Your task to perform on an android device: open the mobile data screen to see how much data has been used Image 0: 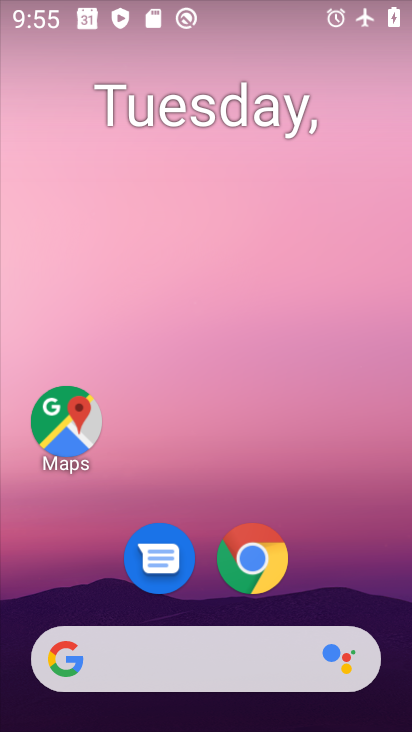
Step 0: drag from (292, 444) to (108, 16)
Your task to perform on an android device: open the mobile data screen to see how much data has been used Image 1: 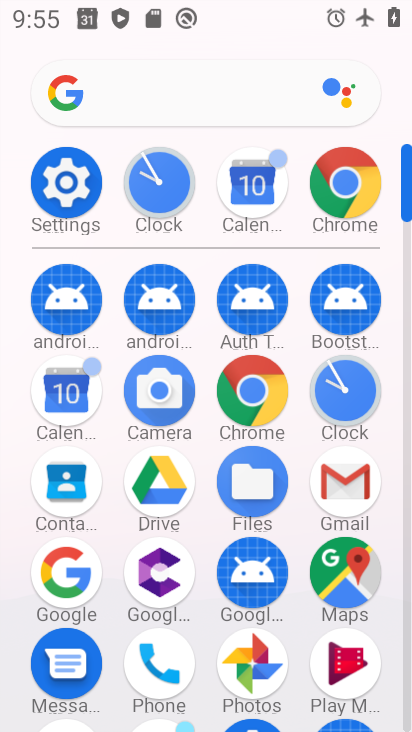
Step 1: click (52, 182)
Your task to perform on an android device: open the mobile data screen to see how much data has been used Image 2: 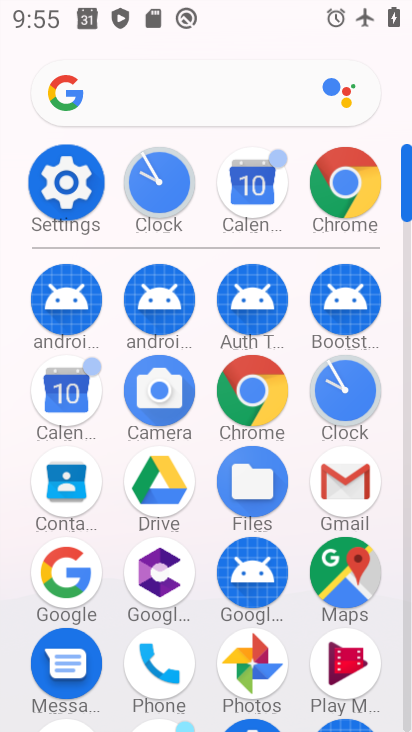
Step 2: click (53, 182)
Your task to perform on an android device: open the mobile data screen to see how much data has been used Image 3: 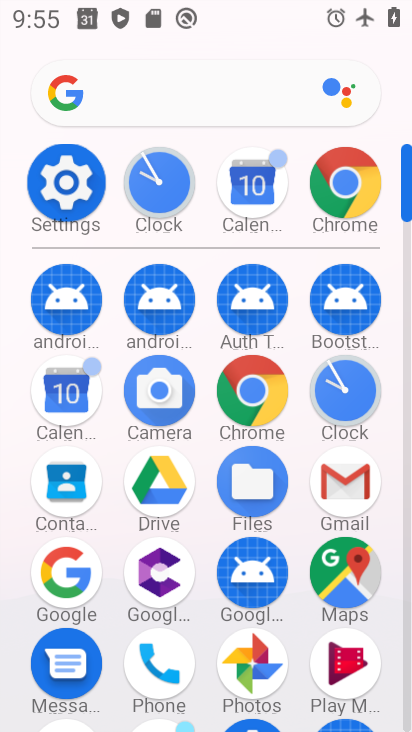
Step 3: click (54, 183)
Your task to perform on an android device: open the mobile data screen to see how much data has been used Image 4: 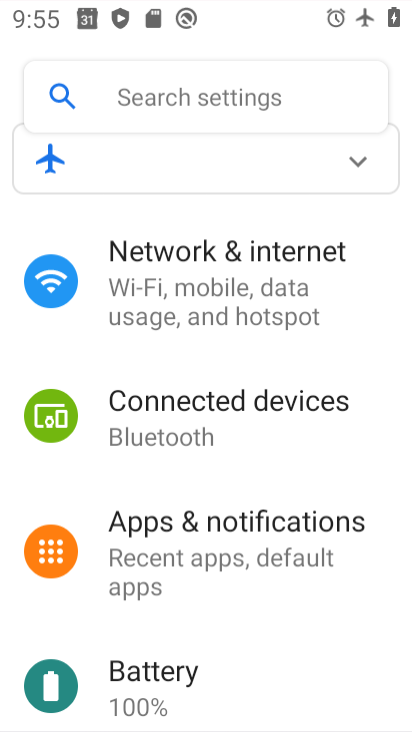
Step 4: click (65, 188)
Your task to perform on an android device: open the mobile data screen to see how much data has been used Image 5: 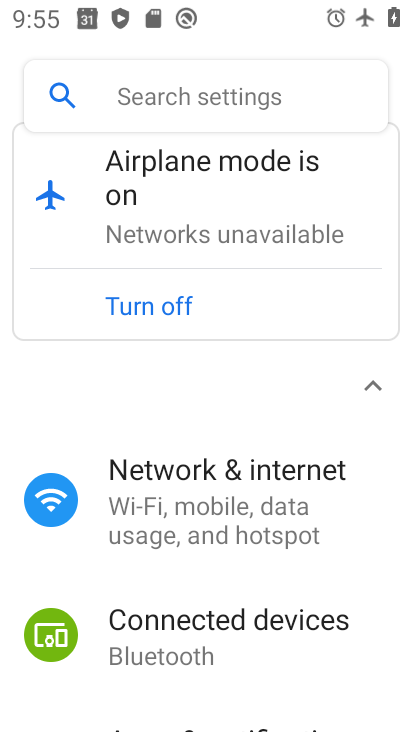
Step 5: click (199, 510)
Your task to perform on an android device: open the mobile data screen to see how much data has been used Image 6: 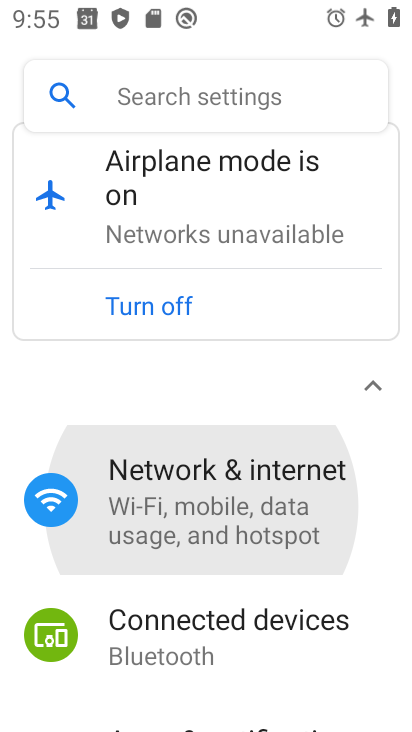
Step 6: click (196, 509)
Your task to perform on an android device: open the mobile data screen to see how much data has been used Image 7: 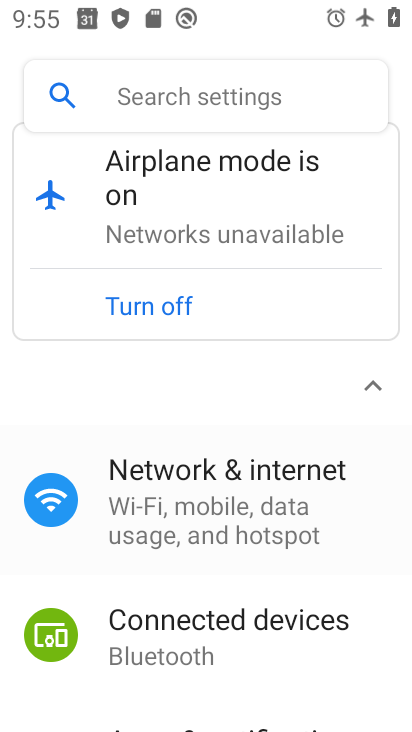
Step 7: click (196, 501)
Your task to perform on an android device: open the mobile data screen to see how much data has been used Image 8: 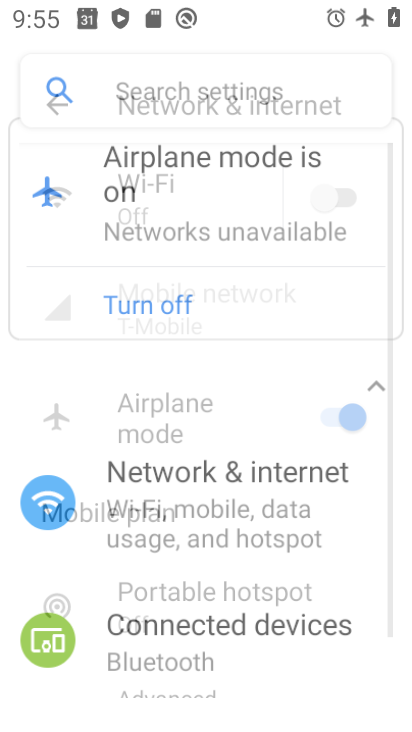
Step 8: click (193, 459)
Your task to perform on an android device: open the mobile data screen to see how much data has been used Image 9: 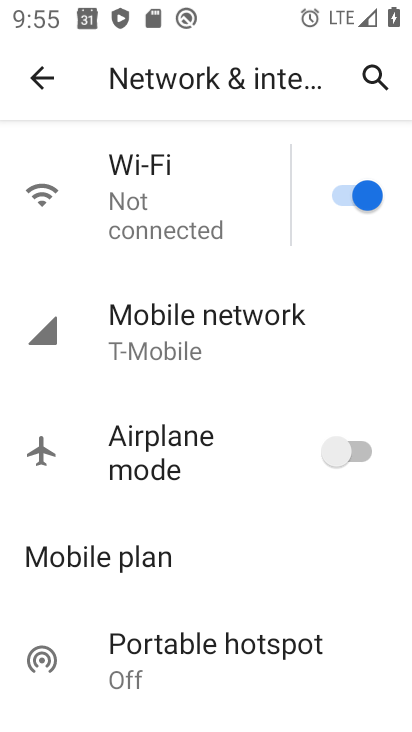
Step 9: task complete